Your task to perform on an android device: Open Google Maps and go to "Timeline" Image 0: 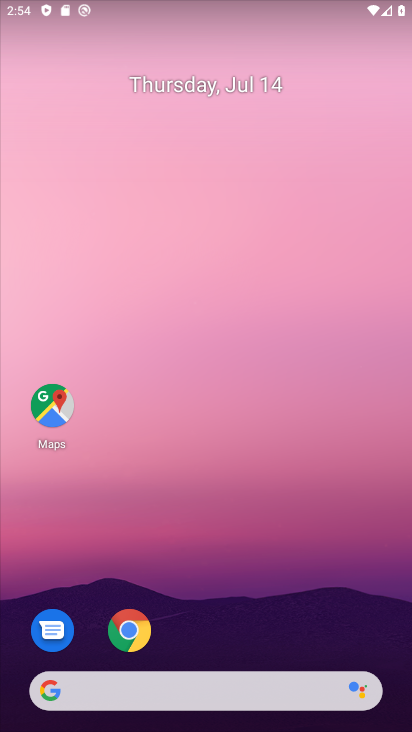
Step 0: click (55, 404)
Your task to perform on an android device: Open Google Maps and go to "Timeline" Image 1: 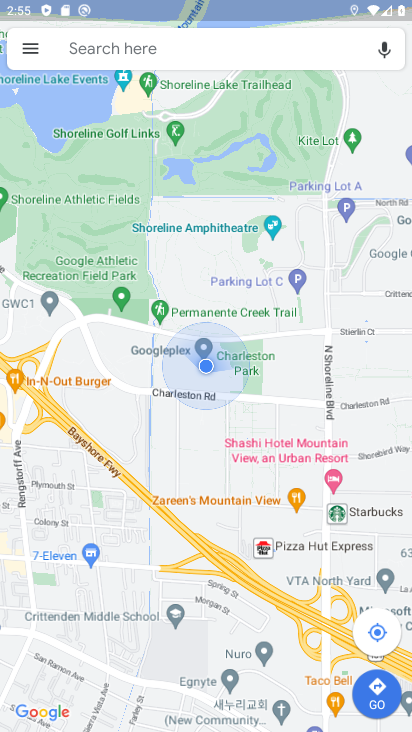
Step 1: click (24, 41)
Your task to perform on an android device: Open Google Maps and go to "Timeline" Image 2: 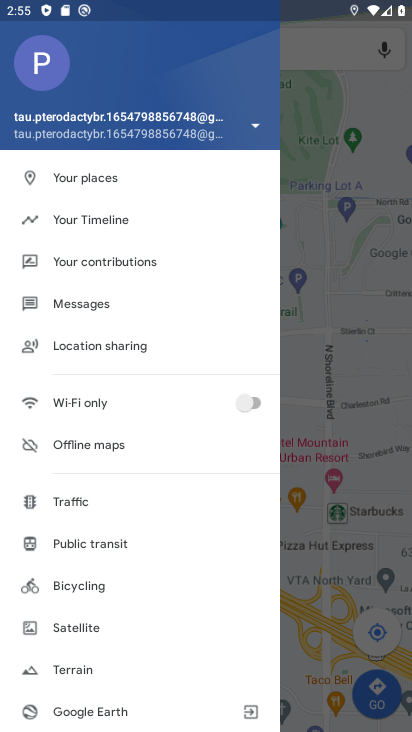
Step 2: click (61, 215)
Your task to perform on an android device: Open Google Maps and go to "Timeline" Image 3: 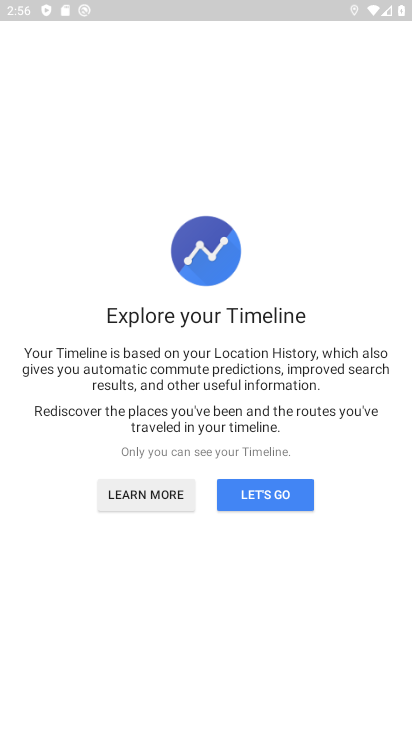
Step 3: click (257, 483)
Your task to perform on an android device: Open Google Maps and go to "Timeline" Image 4: 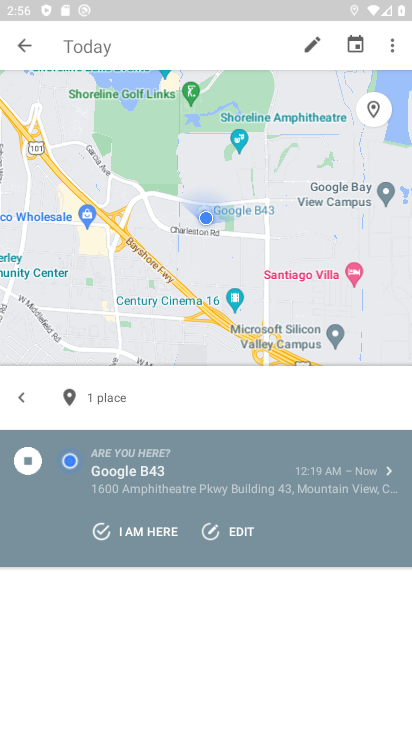
Step 4: task complete